Your task to perform on an android device: allow cookies in the chrome app Image 0: 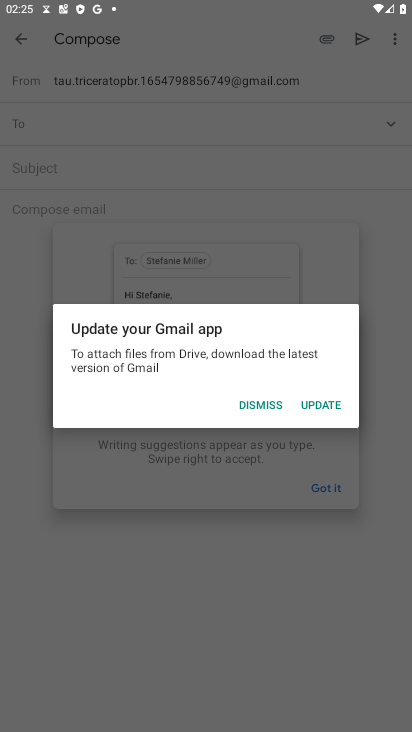
Step 0: click (261, 401)
Your task to perform on an android device: allow cookies in the chrome app Image 1: 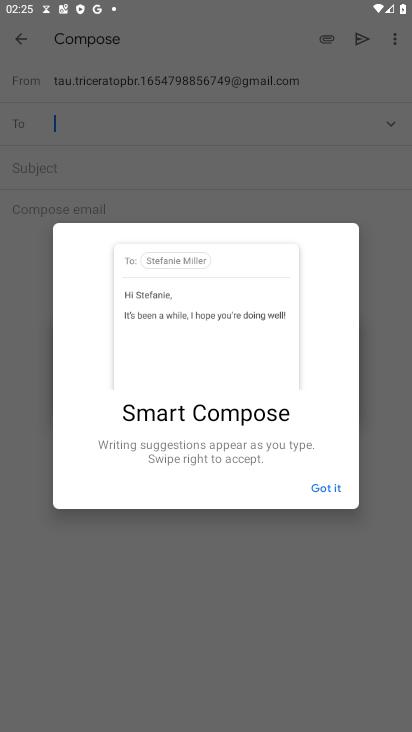
Step 1: press home button
Your task to perform on an android device: allow cookies in the chrome app Image 2: 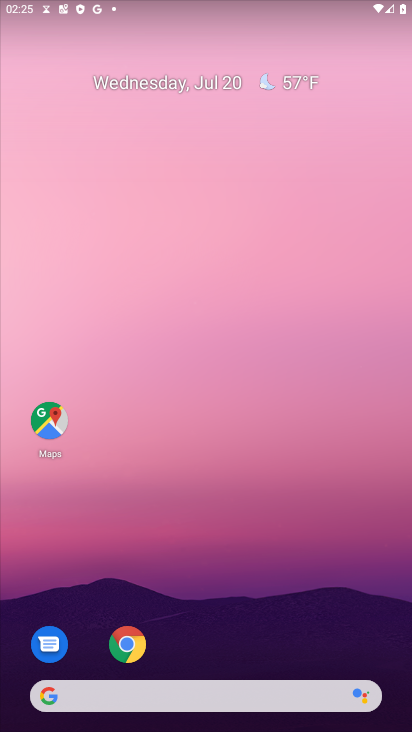
Step 2: drag from (258, 644) to (314, 97)
Your task to perform on an android device: allow cookies in the chrome app Image 3: 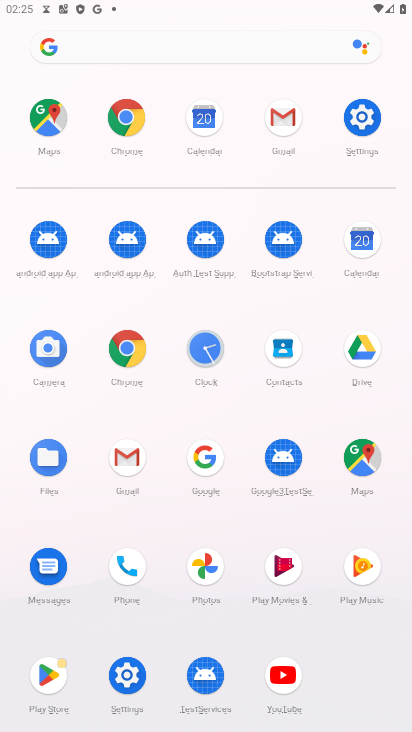
Step 3: click (129, 118)
Your task to perform on an android device: allow cookies in the chrome app Image 4: 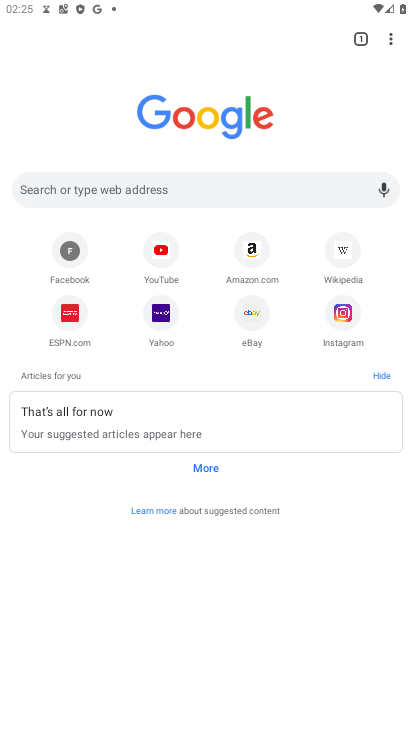
Step 4: drag from (393, 43) to (229, 319)
Your task to perform on an android device: allow cookies in the chrome app Image 5: 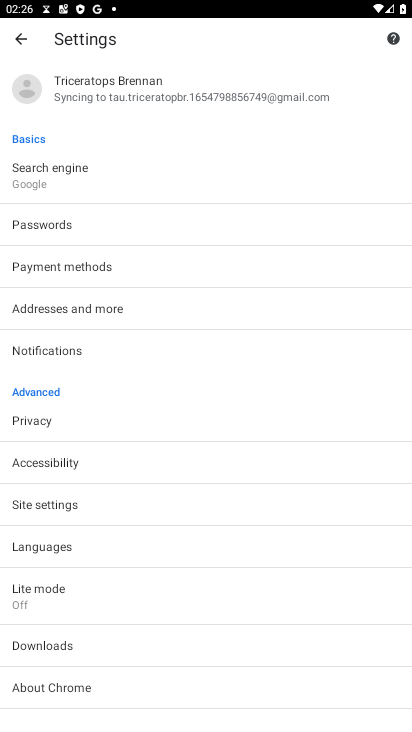
Step 5: click (38, 503)
Your task to perform on an android device: allow cookies in the chrome app Image 6: 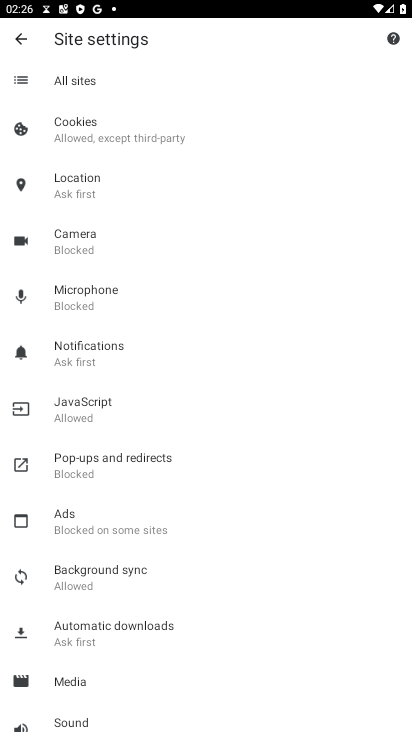
Step 6: click (90, 139)
Your task to perform on an android device: allow cookies in the chrome app Image 7: 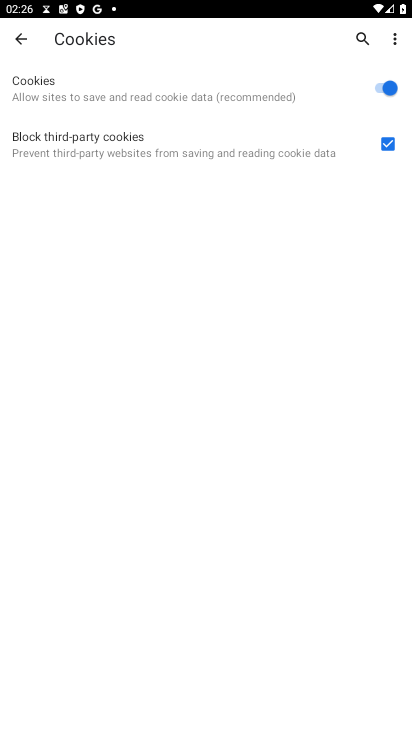
Step 7: task complete